Your task to perform on an android device: see sites visited before in the chrome app Image 0: 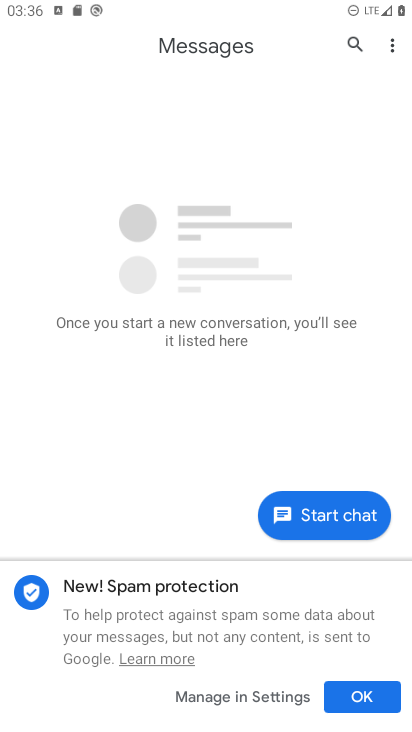
Step 0: press home button
Your task to perform on an android device: see sites visited before in the chrome app Image 1: 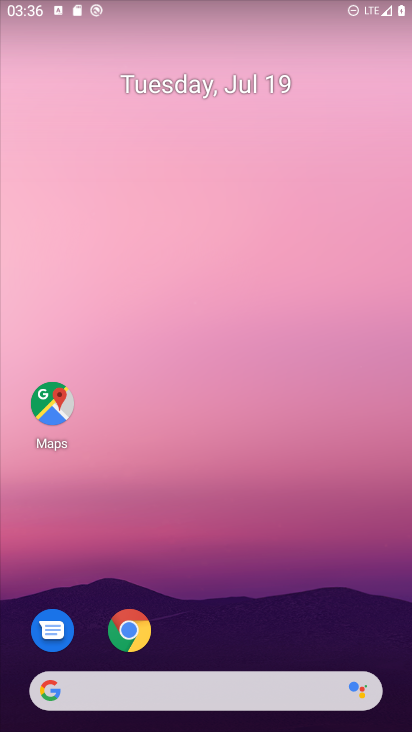
Step 1: click (133, 632)
Your task to perform on an android device: see sites visited before in the chrome app Image 2: 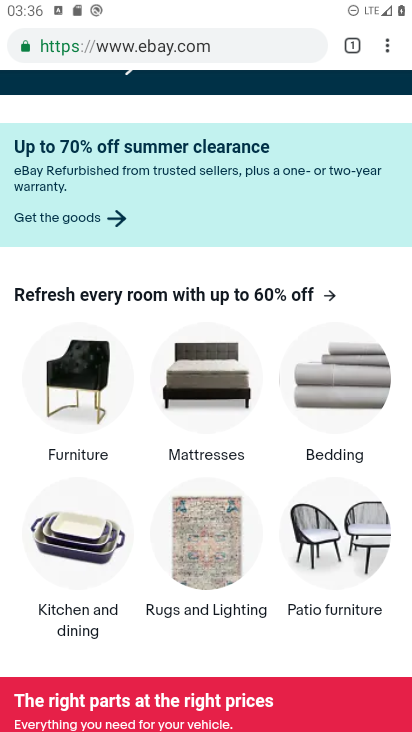
Step 2: click (386, 50)
Your task to perform on an android device: see sites visited before in the chrome app Image 3: 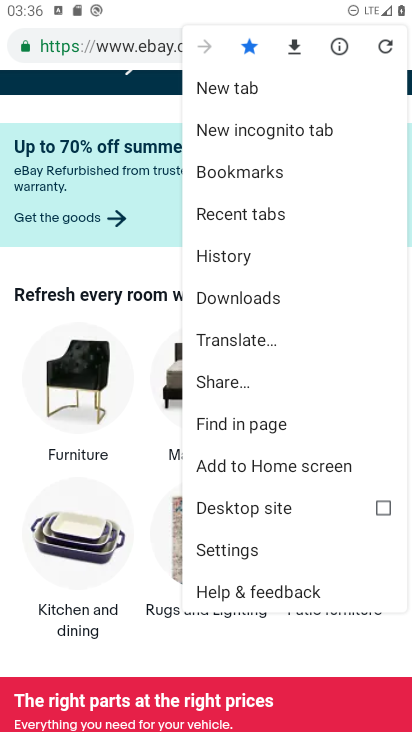
Step 3: click (224, 257)
Your task to perform on an android device: see sites visited before in the chrome app Image 4: 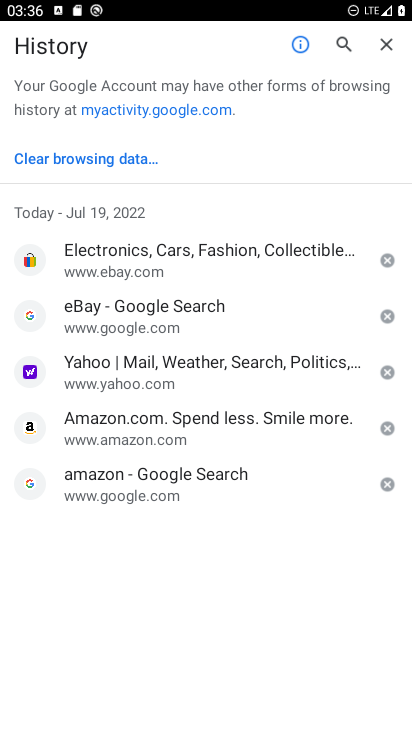
Step 4: task complete